Your task to perform on an android device: read, delete, or share a saved page in the chrome app Image 0: 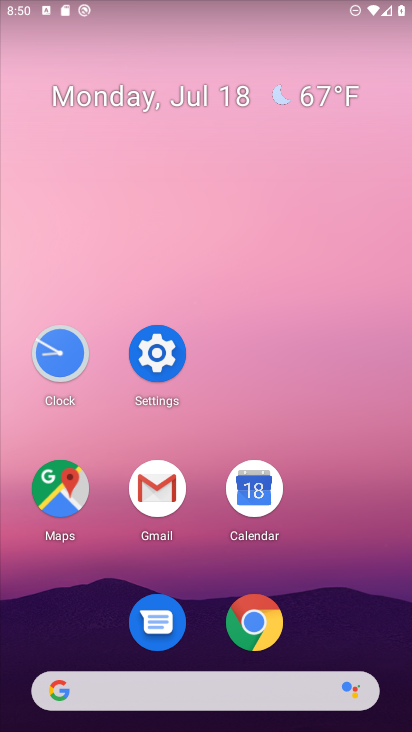
Step 0: click (256, 619)
Your task to perform on an android device: read, delete, or share a saved page in the chrome app Image 1: 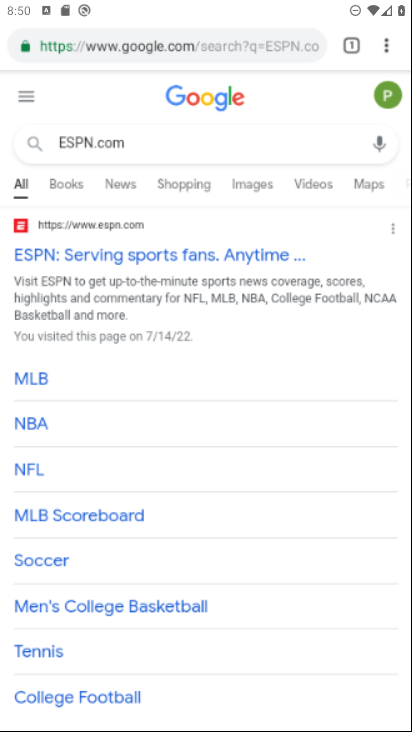
Step 1: click (389, 43)
Your task to perform on an android device: read, delete, or share a saved page in the chrome app Image 2: 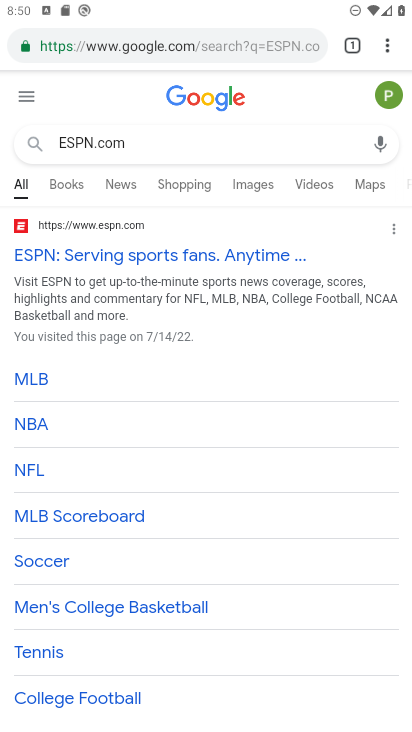
Step 2: click (387, 43)
Your task to perform on an android device: read, delete, or share a saved page in the chrome app Image 3: 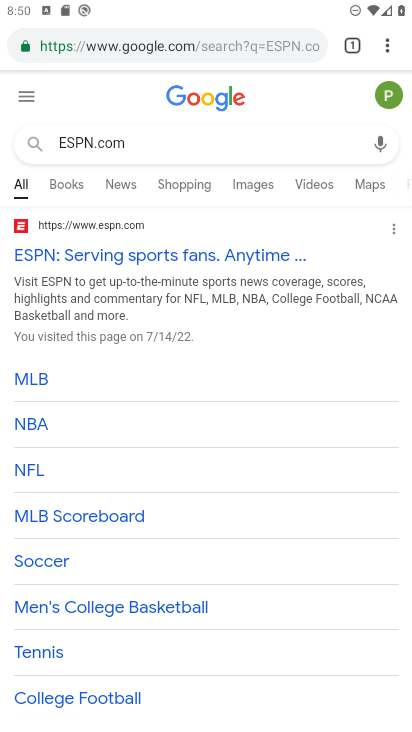
Step 3: click (387, 43)
Your task to perform on an android device: read, delete, or share a saved page in the chrome app Image 4: 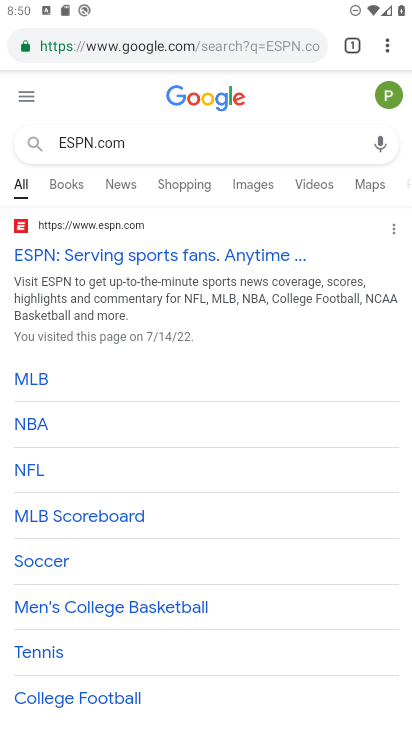
Step 4: click (387, 43)
Your task to perform on an android device: read, delete, or share a saved page in the chrome app Image 5: 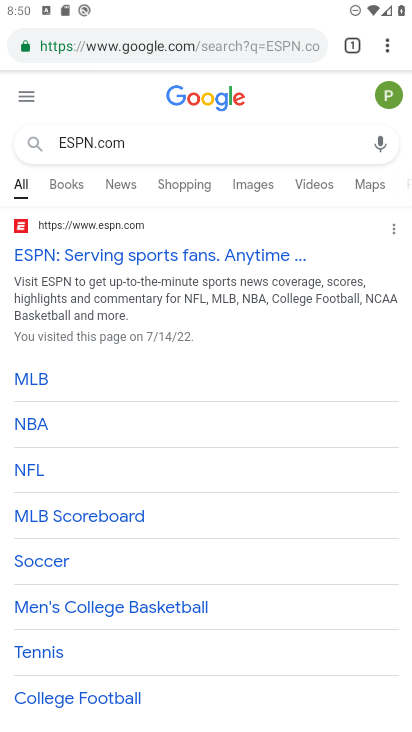
Step 5: click (387, 45)
Your task to perform on an android device: read, delete, or share a saved page in the chrome app Image 6: 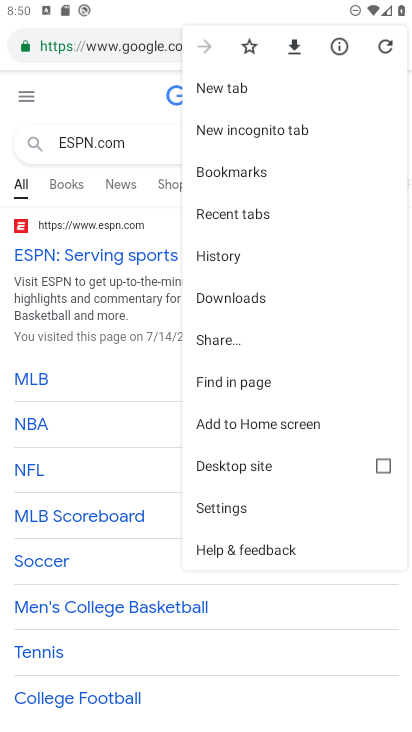
Step 6: click (218, 298)
Your task to perform on an android device: read, delete, or share a saved page in the chrome app Image 7: 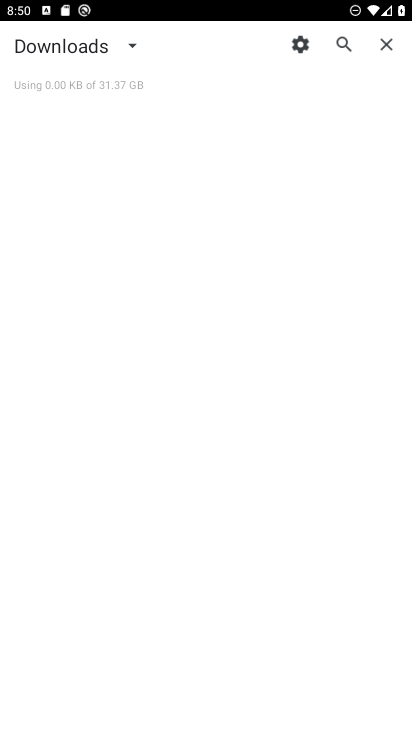
Step 7: task complete